Your task to perform on an android device: toggle priority inbox in the gmail app Image 0: 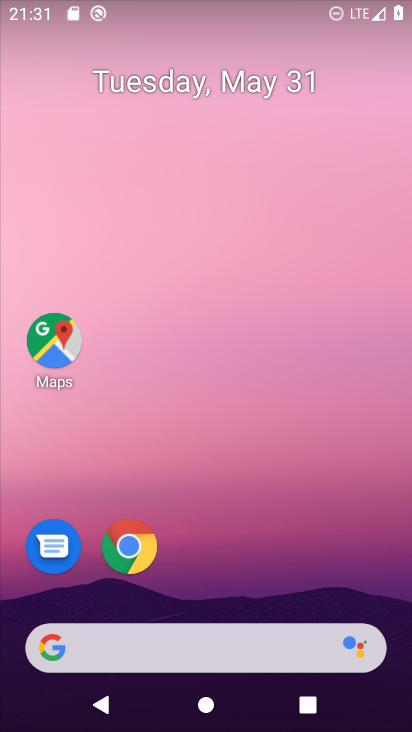
Step 0: drag from (397, 691) to (360, 167)
Your task to perform on an android device: toggle priority inbox in the gmail app Image 1: 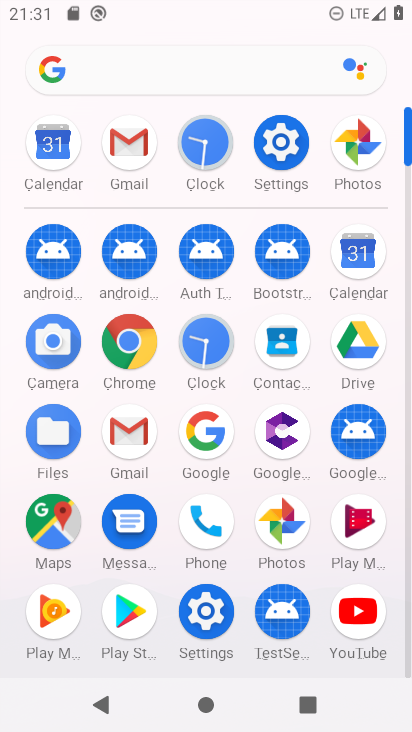
Step 1: click (137, 434)
Your task to perform on an android device: toggle priority inbox in the gmail app Image 2: 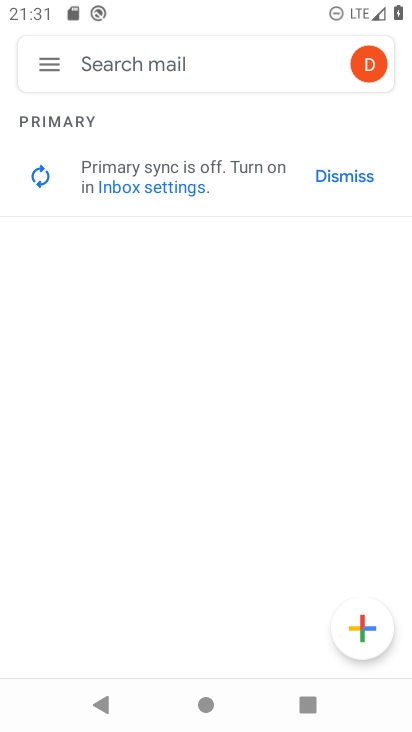
Step 2: click (58, 65)
Your task to perform on an android device: toggle priority inbox in the gmail app Image 3: 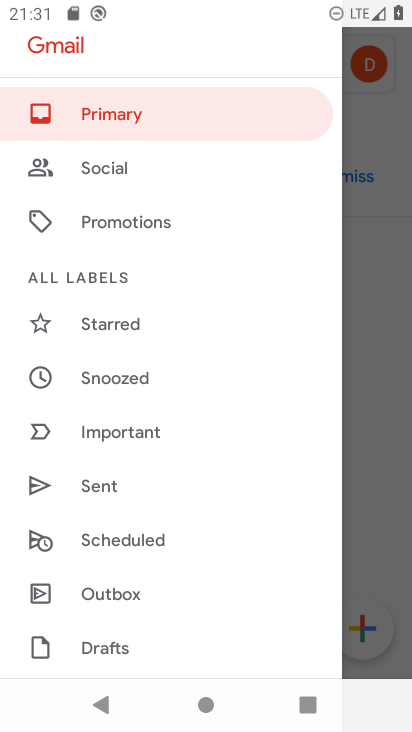
Step 3: drag from (222, 601) to (255, 212)
Your task to perform on an android device: toggle priority inbox in the gmail app Image 4: 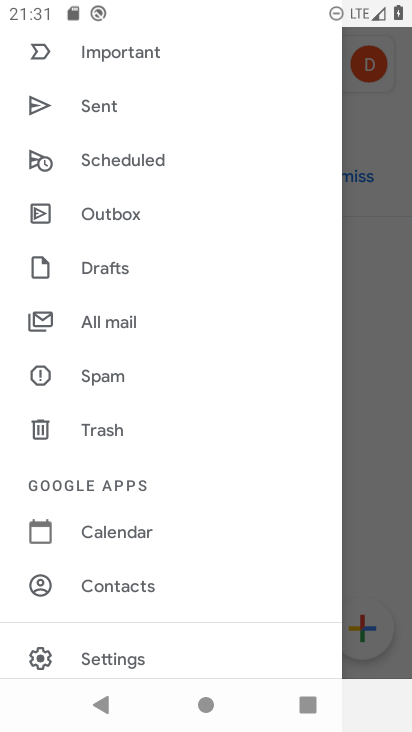
Step 4: click (115, 655)
Your task to perform on an android device: toggle priority inbox in the gmail app Image 5: 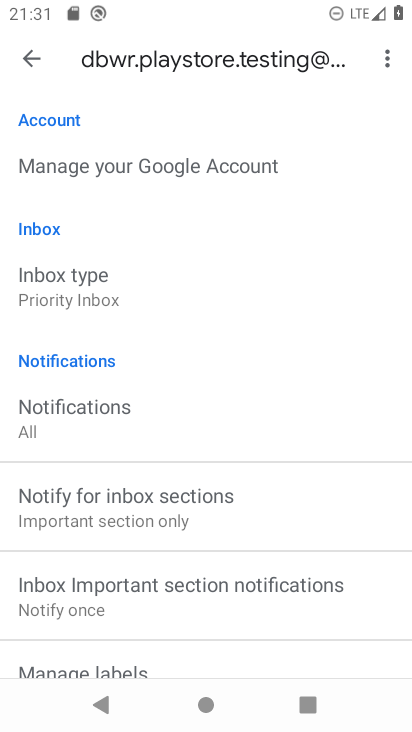
Step 5: click (63, 288)
Your task to perform on an android device: toggle priority inbox in the gmail app Image 6: 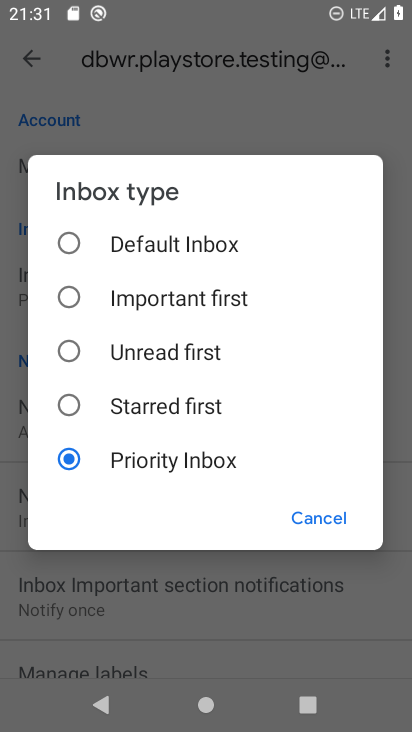
Step 6: click (71, 292)
Your task to perform on an android device: toggle priority inbox in the gmail app Image 7: 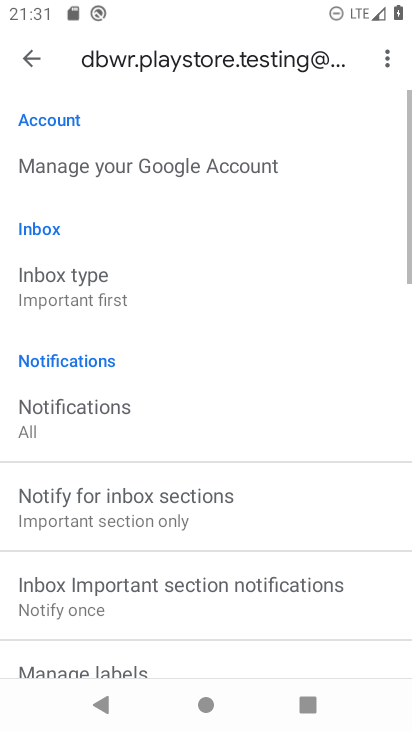
Step 7: task complete